Your task to perform on an android device: star an email in the gmail app Image 0: 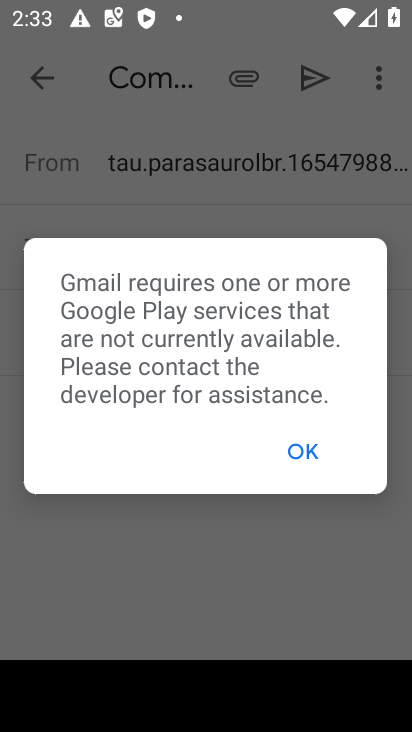
Step 0: press home button
Your task to perform on an android device: star an email in the gmail app Image 1: 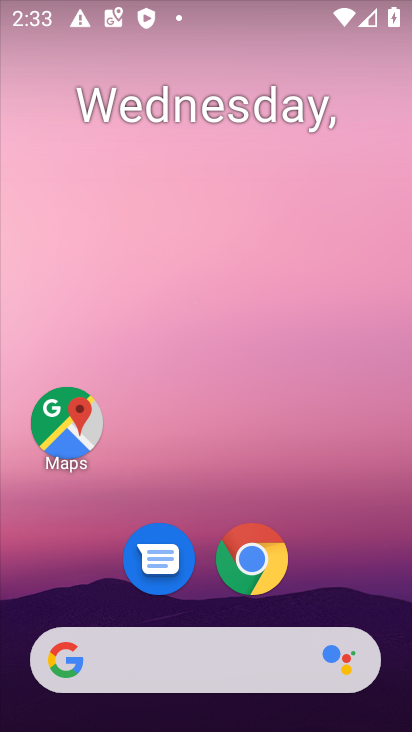
Step 1: drag from (211, 611) to (215, 27)
Your task to perform on an android device: star an email in the gmail app Image 2: 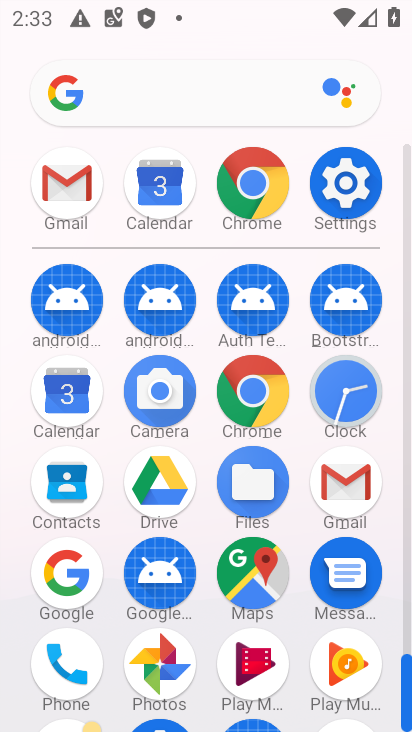
Step 2: click (343, 491)
Your task to perform on an android device: star an email in the gmail app Image 3: 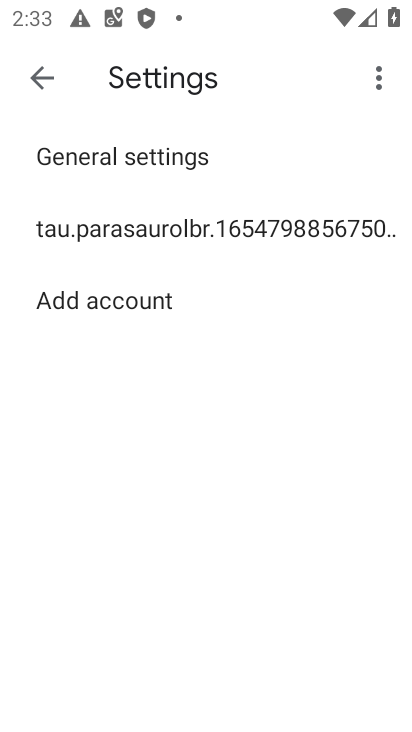
Step 3: click (36, 67)
Your task to perform on an android device: star an email in the gmail app Image 4: 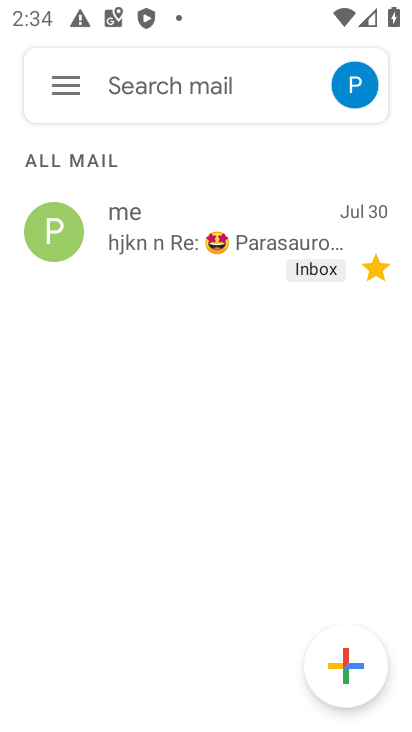
Step 4: task complete